Your task to perform on an android device: check android version Image 0: 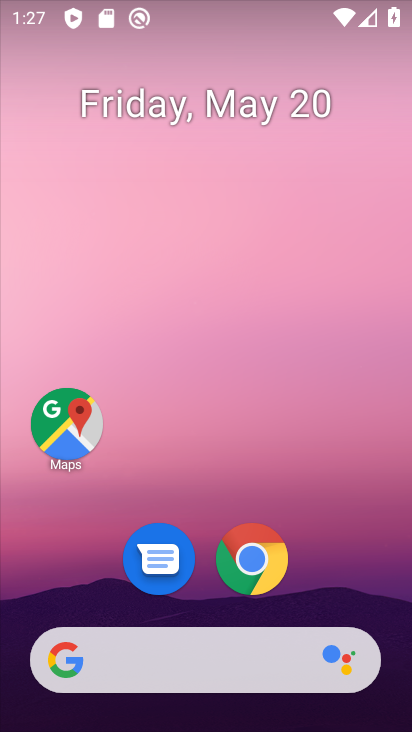
Step 0: drag from (381, 571) to (294, 39)
Your task to perform on an android device: check android version Image 1: 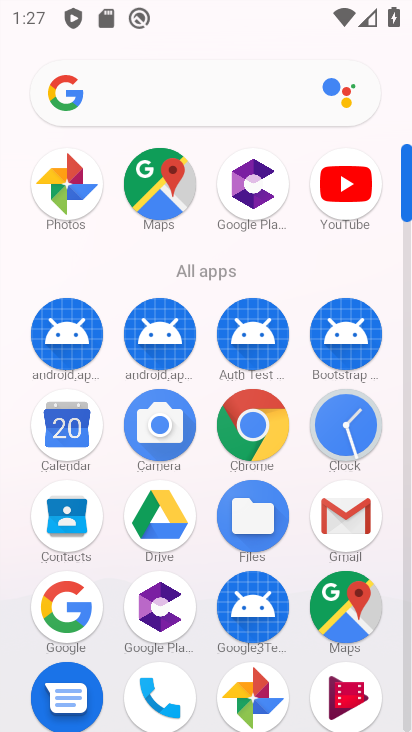
Step 1: drag from (114, 570) to (117, 142)
Your task to perform on an android device: check android version Image 2: 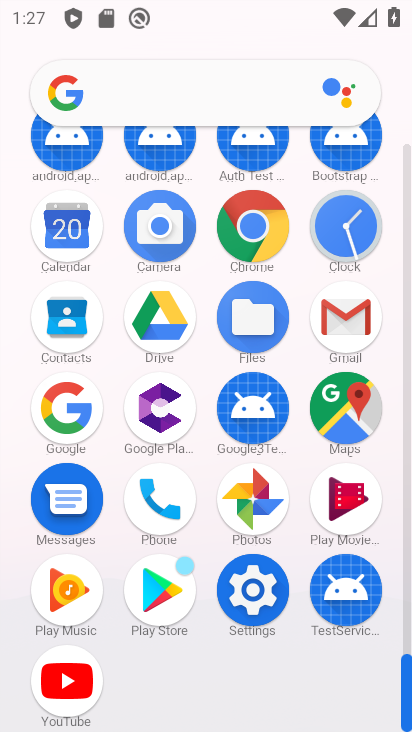
Step 2: click (242, 609)
Your task to perform on an android device: check android version Image 3: 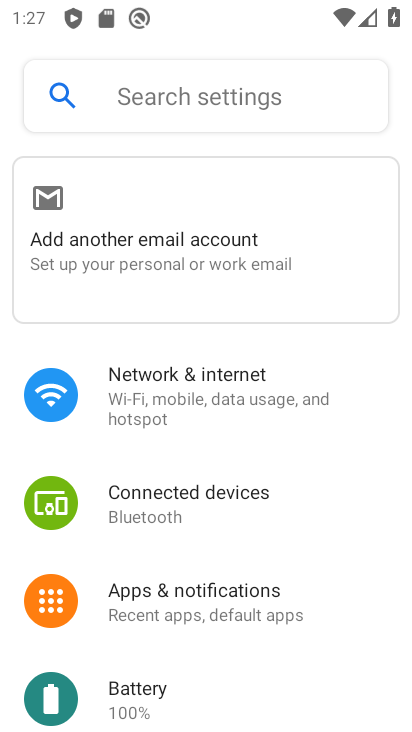
Step 3: drag from (184, 611) to (147, 130)
Your task to perform on an android device: check android version Image 4: 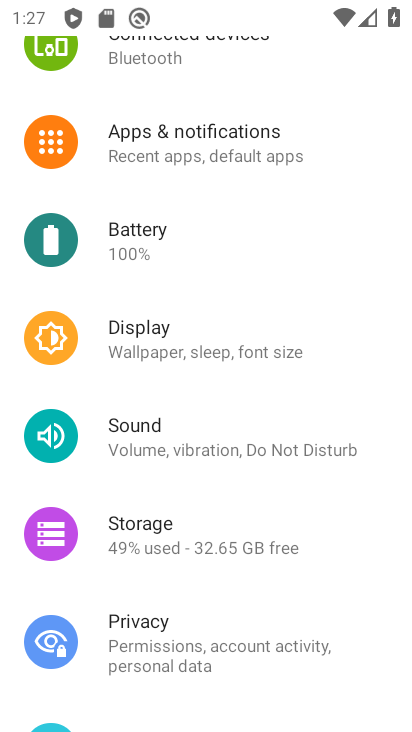
Step 4: drag from (178, 598) to (138, 231)
Your task to perform on an android device: check android version Image 5: 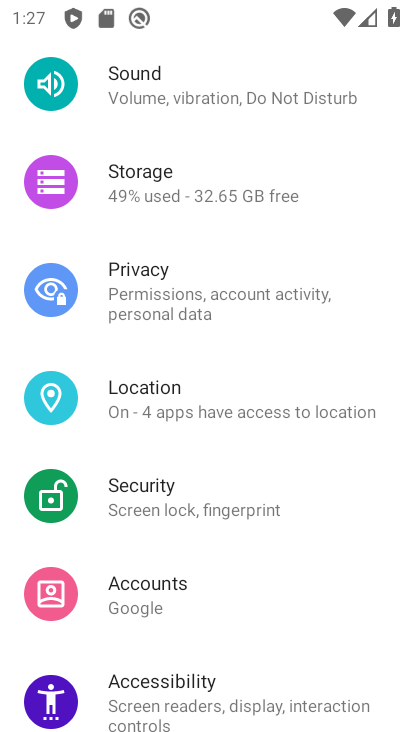
Step 5: drag from (294, 594) to (279, 130)
Your task to perform on an android device: check android version Image 6: 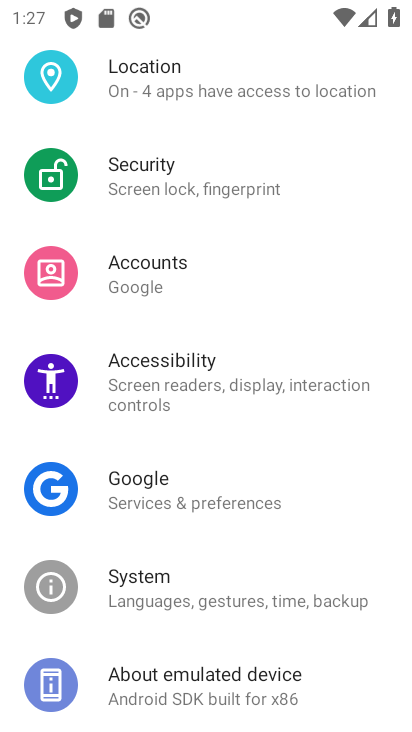
Step 6: click (182, 711)
Your task to perform on an android device: check android version Image 7: 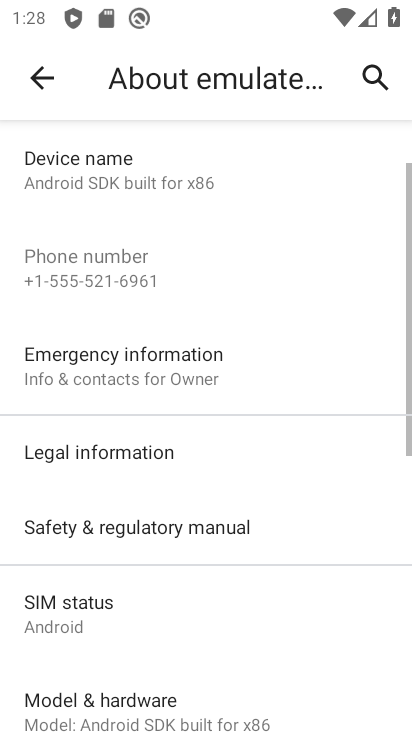
Step 7: drag from (165, 694) to (194, 274)
Your task to perform on an android device: check android version Image 8: 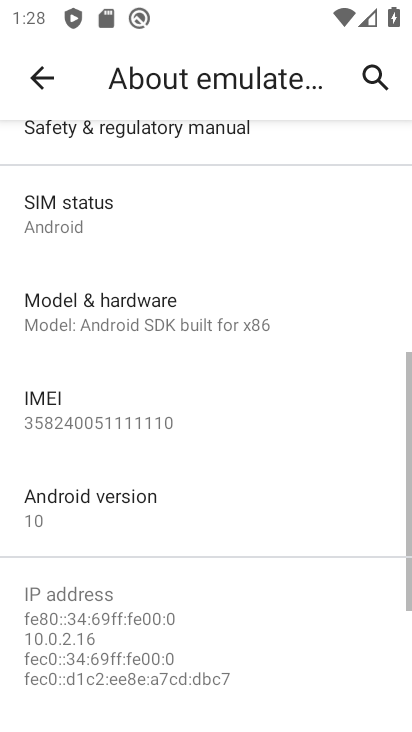
Step 8: click (132, 500)
Your task to perform on an android device: check android version Image 9: 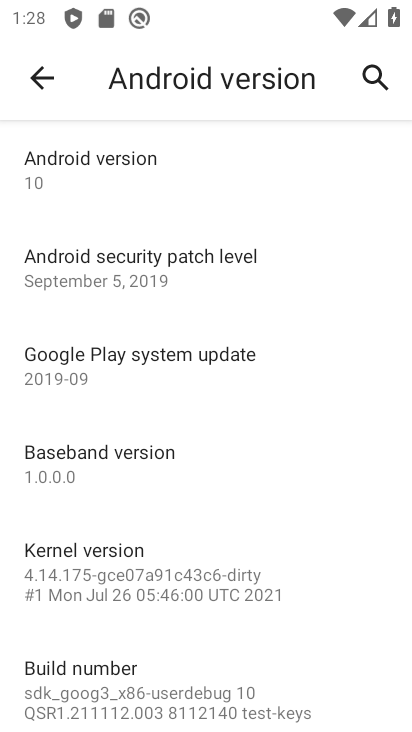
Step 9: click (105, 162)
Your task to perform on an android device: check android version Image 10: 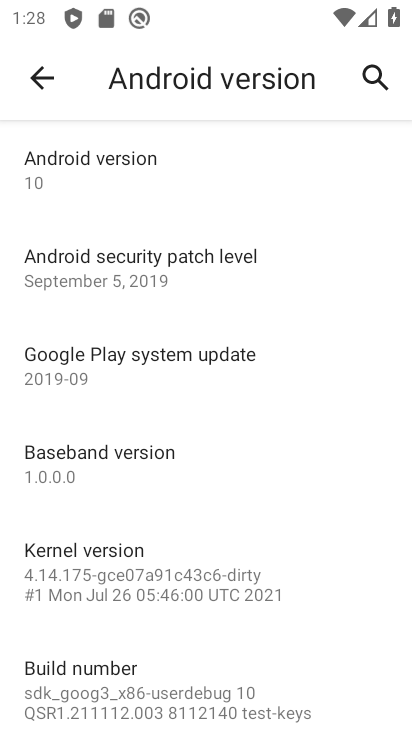
Step 10: task complete